Your task to perform on an android device: Turn on the flashlight Image 0: 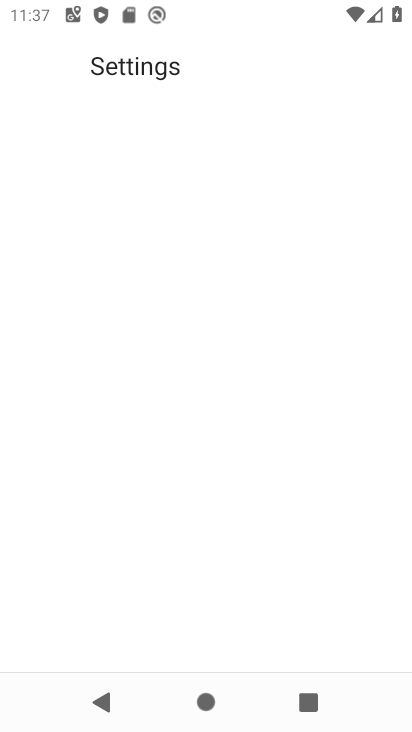
Step 0: drag from (338, 556) to (313, 130)
Your task to perform on an android device: Turn on the flashlight Image 1: 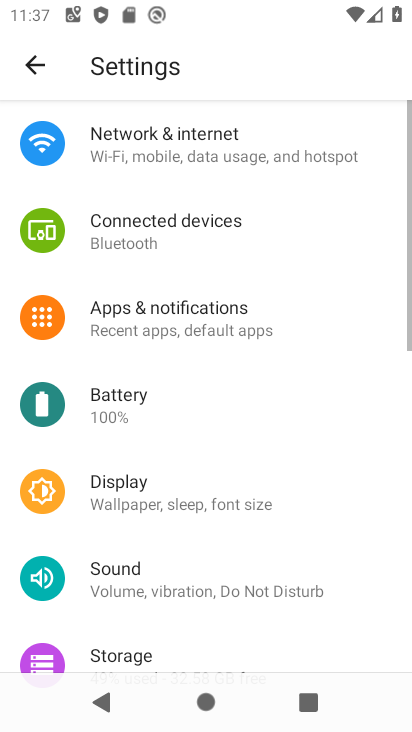
Step 1: press home button
Your task to perform on an android device: Turn on the flashlight Image 2: 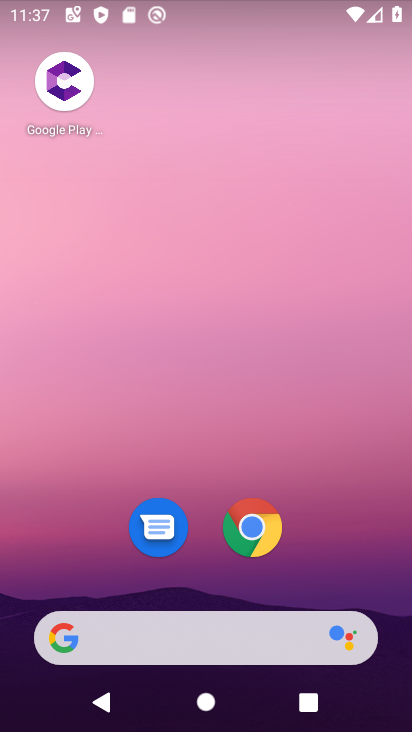
Step 2: drag from (351, 540) to (317, 145)
Your task to perform on an android device: Turn on the flashlight Image 3: 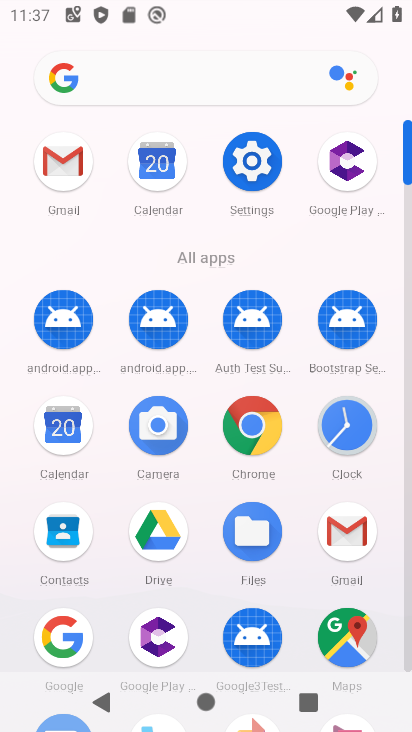
Step 3: click (266, 162)
Your task to perform on an android device: Turn on the flashlight Image 4: 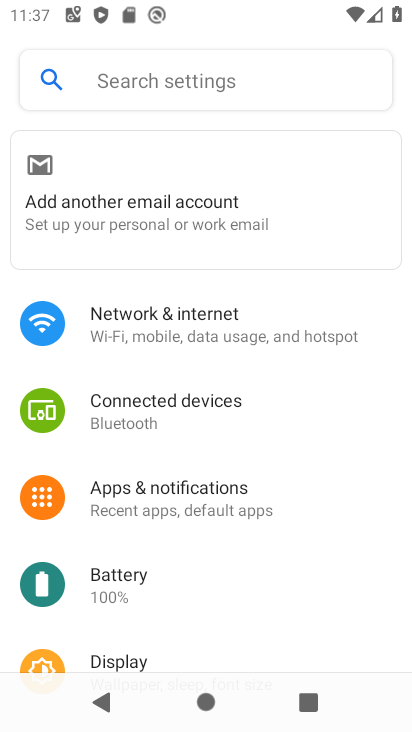
Step 4: click (126, 663)
Your task to perform on an android device: Turn on the flashlight Image 5: 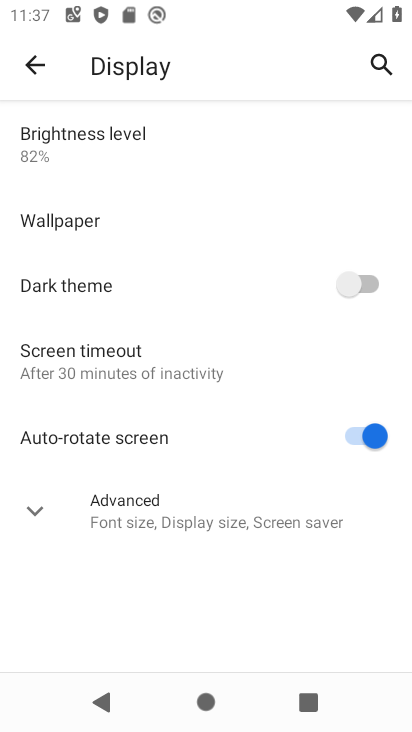
Step 5: task complete